Your task to perform on an android device: Do I have any events tomorrow? Image 0: 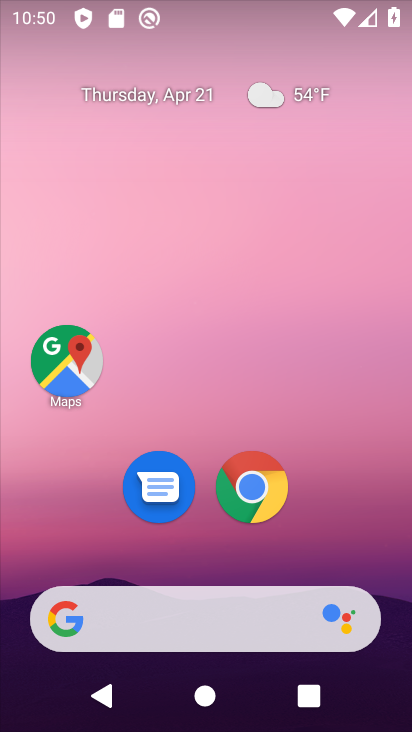
Step 0: drag from (377, 542) to (397, 115)
Your task to perform on an android device: Do I have any events tomorrow? Image 1: 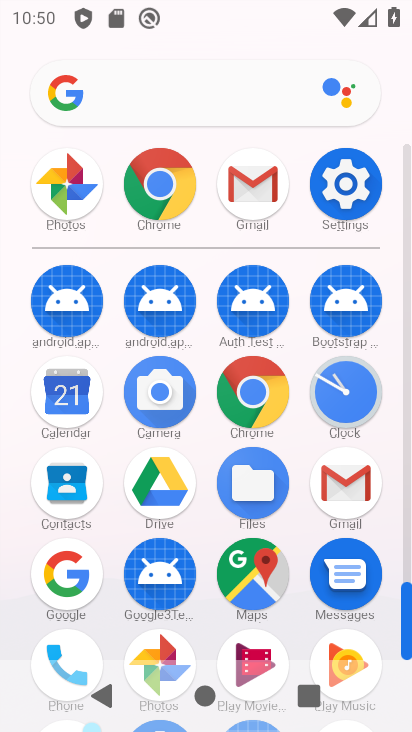
Step 1: click (67, 399)
Your task to perform on an android device: Do I have any events tomorrow? Image 2: 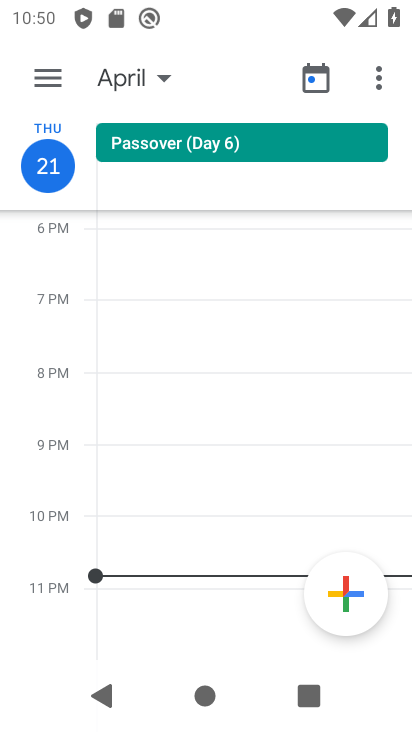
Step 2: click (114, 82)
Your task to perform on an android device: Do I have any events tomorrow? Image 3: 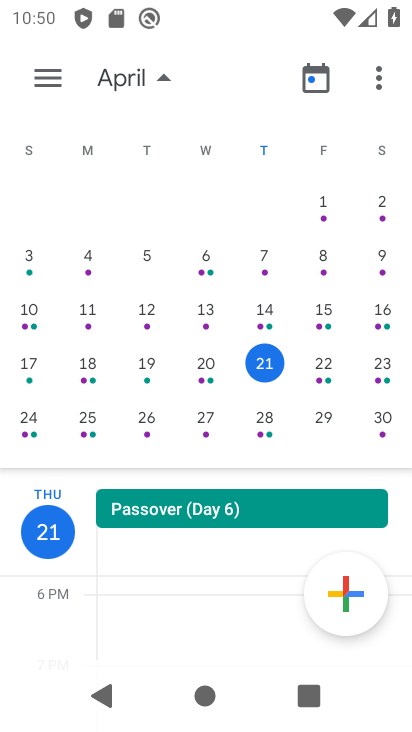
Step 3: click (331, 366)
Your task to perform on an android device: Do I have any events tomorrow? Image 4: 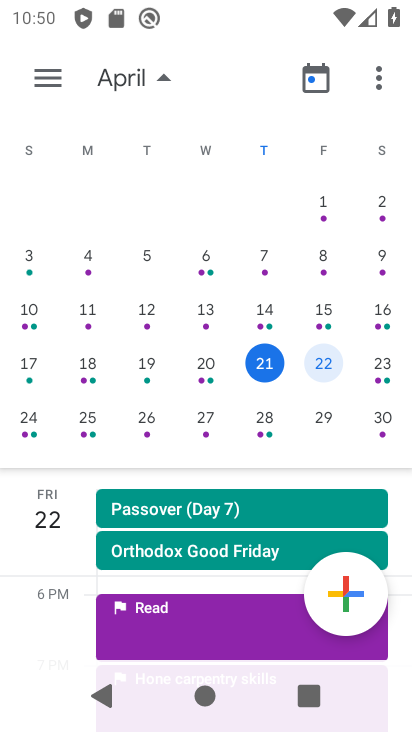
Step 4: task complete